Your task to perform on an android device: set default search engine in the chrome app Image 0: 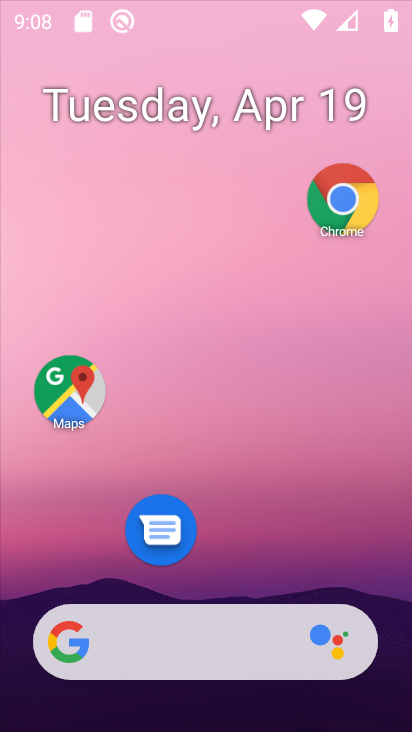
Step 0: drag from (316, 85) to (196, 98)
Your task to perform on an android device: set default search engine in the chrome app Image 1: 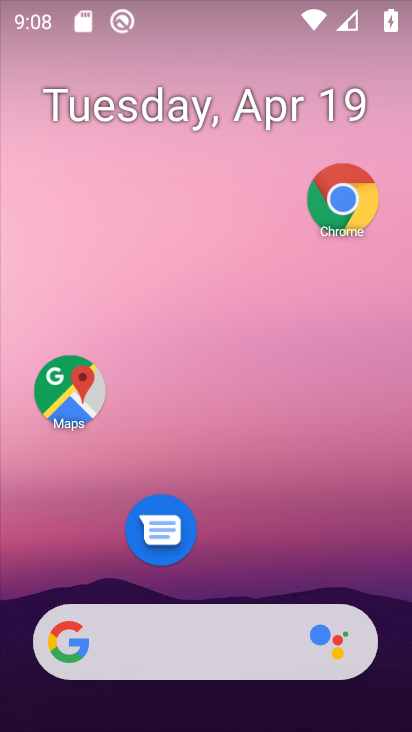
Step 1: drag from (201, 556) to (193, 292)
Your task to perform on an android device: set default search engine in the chrome app Image 2: 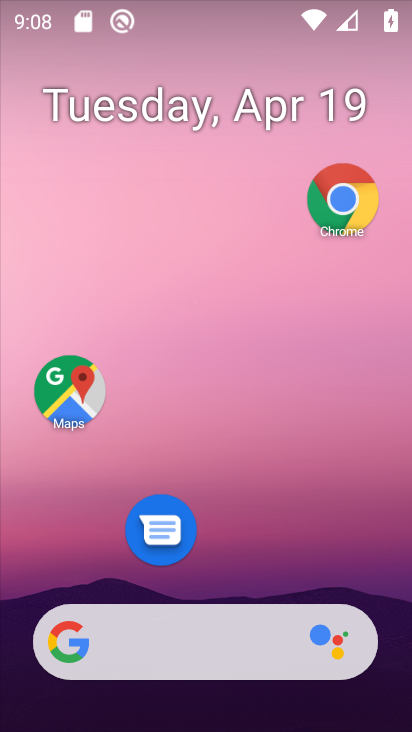
Step 2: drag from (214, 590) to (247, 269)
Your task to perform on an android device: set default search engine in the chrome app Image 3: 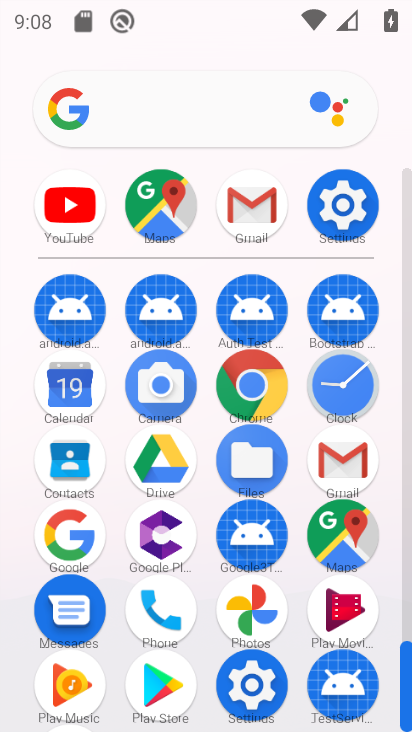
Step 3: drag from (200, 687) to (206, 338)
Your task to perform on an android device: set default search engine in the chrome app Image 4: 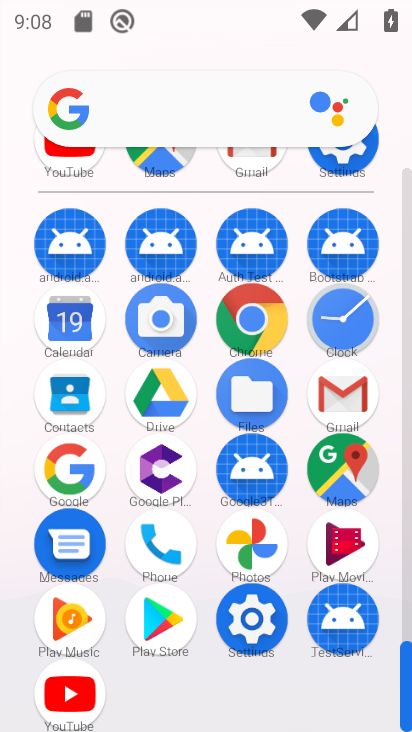
Step 4: drag from (194, 632) to (200, 429)
Your task to perform on an android device: set default search engine in the chrome app Image 5: 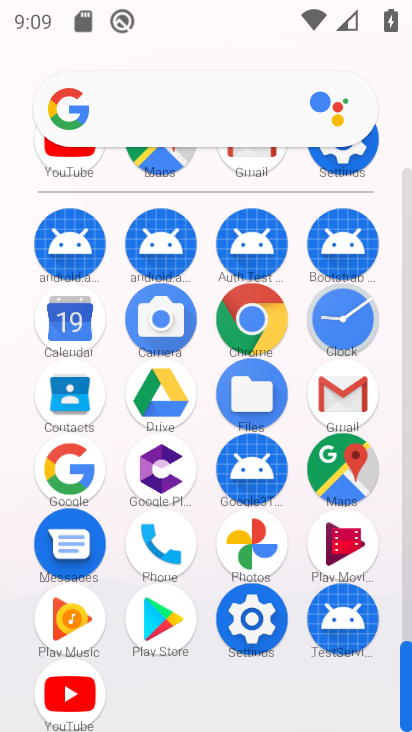
Step 5: click (255, 312)
Your task to perform on an android device: set default search engine in the chrome app Image 6: 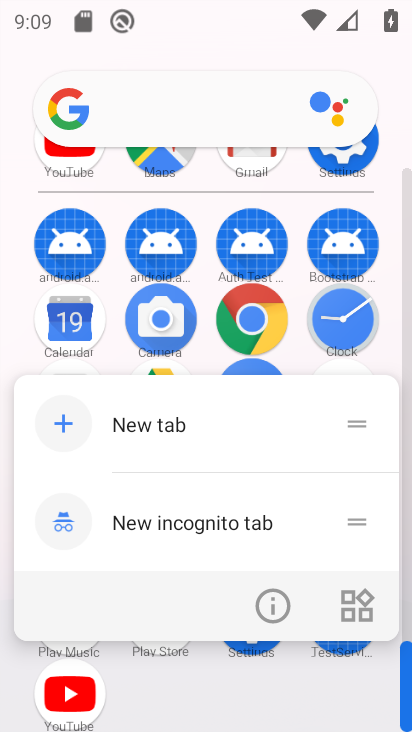
Step 6: click (270, 588)
Your task to perform on an android device: set default search engine in the chrome app Image 7: 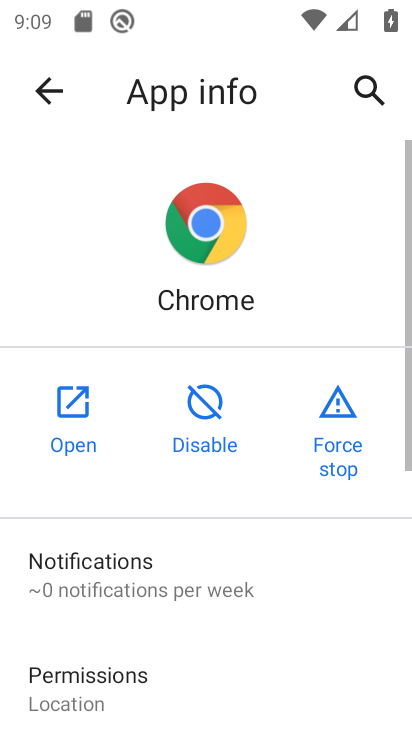
Step 7: click (80, 425)
Your task to perform on an android device: set default search engine in the chrome app Image 8: 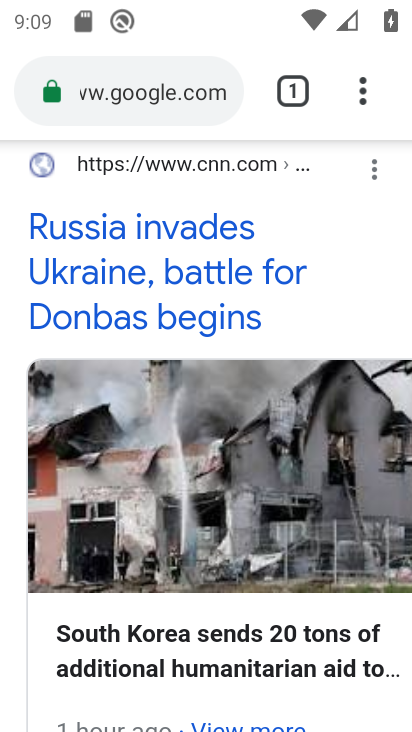
Step 8: drag from (181, 660) to (389, 82)
Your task to perform on an android device: set default search engine in the chrome app Image 9: 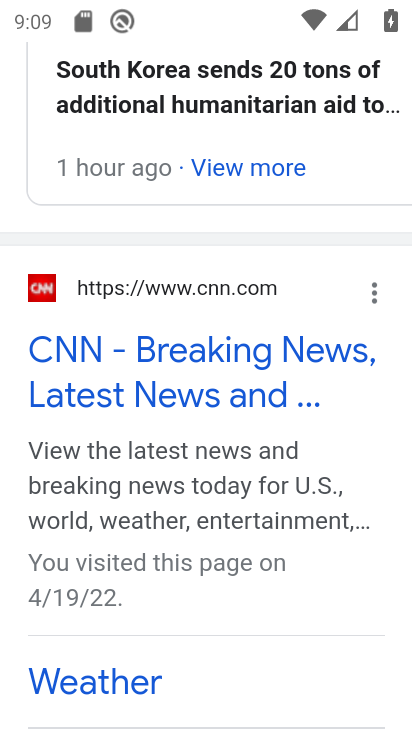
Step 9: drag from (178, 574) to (282, 155)
Your task to perform on an android device: set default search engine in the chrome app Image 10: 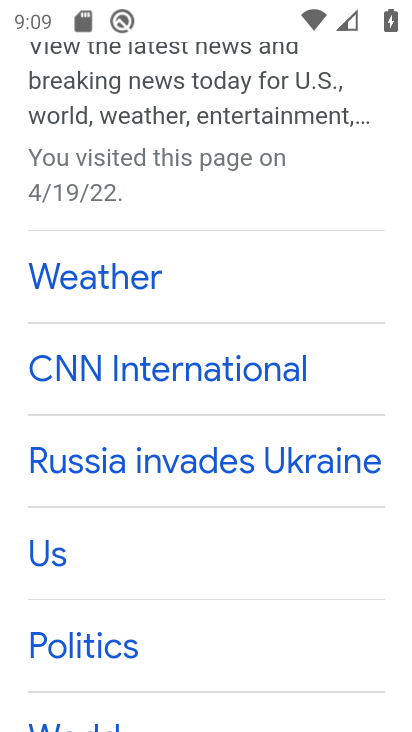
Step 10: drag from (220, 249) to (262, 564)
Your task to perform on an android device: set default search engine in the chrome app Image 11: 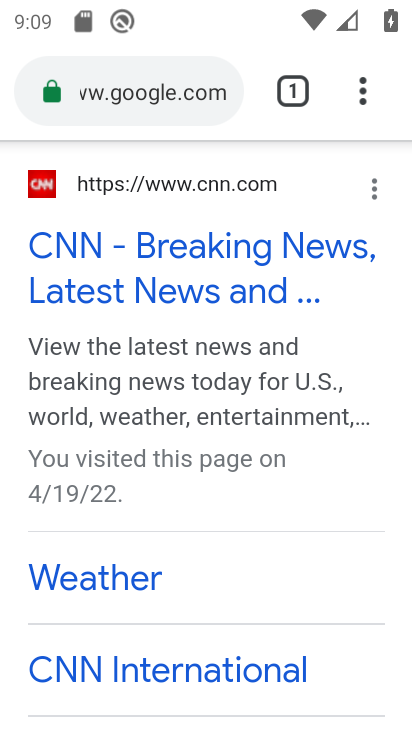
Step 11: drag from (224, 184) to (240, 493)
Your task to perform on an android device: set default search engine in the chrome app Image 12: 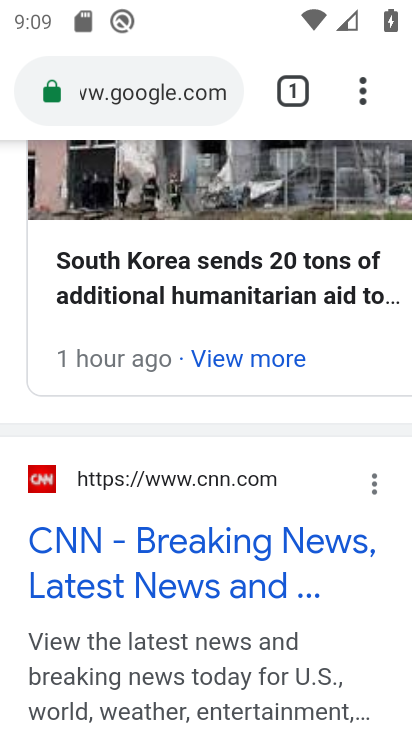
Step 12: click (356, 103)
Your task to perform on an android device: set default search engine in the chrome app Image 13: 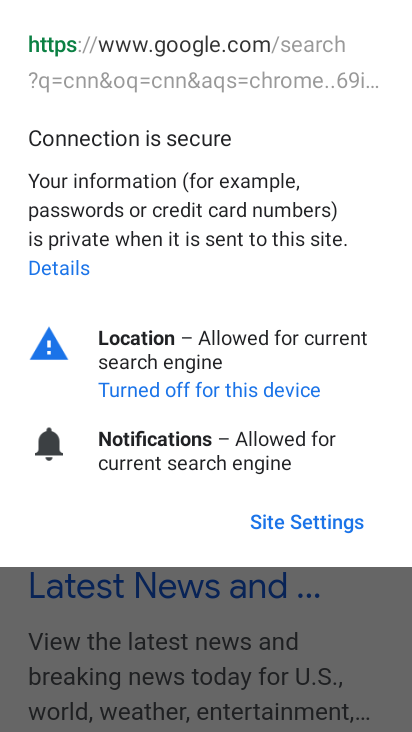
Step 13: click (307, 670)
Your task to perform on an android device: set default search engine in the chrome app Image 14: 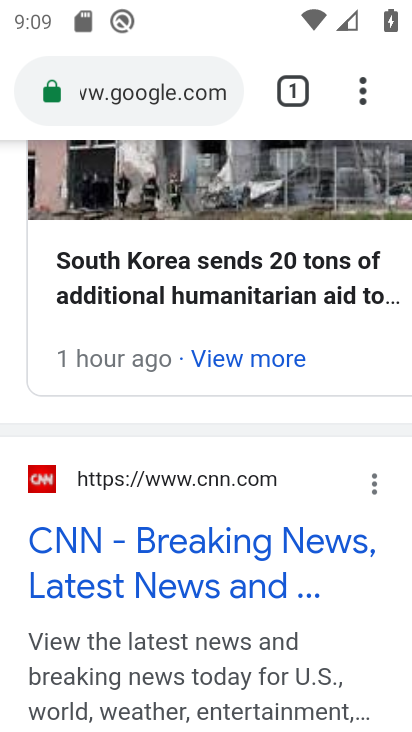
Step 14: drag from (311, 259) to (307, 653)
Your task to perform on an android device: set default search engine in the chrome app Image 15: 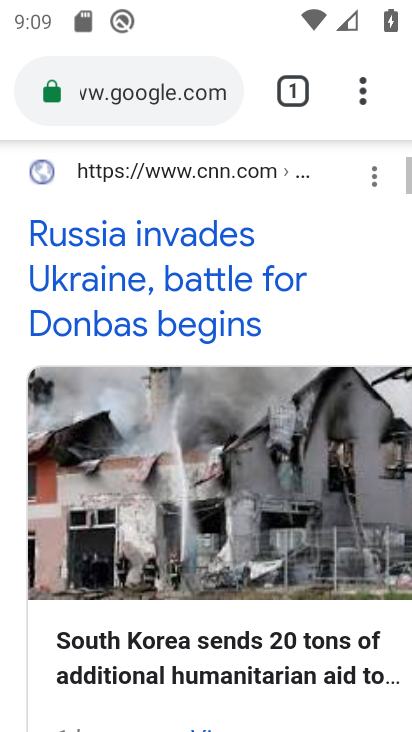
Step 15: drag from (252, 234) to (399, 643)
Your task to perform on an android device: set default search engine in the chrome app Image 16: 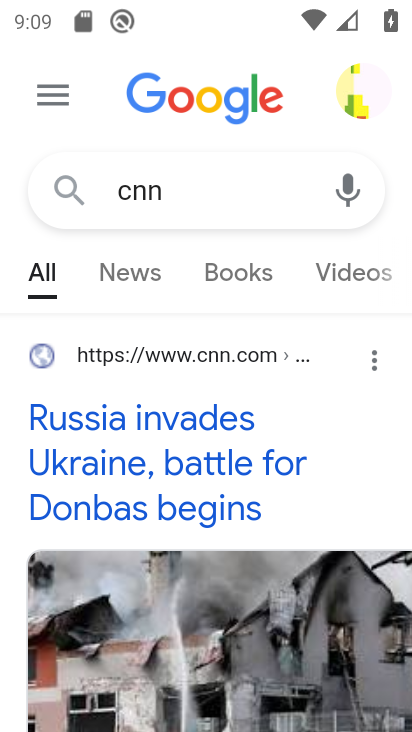
Step 16: drag from (304, 496) to (355, 36)
Your task to perform on an android device: set default search engine in the chrome app Image 17: 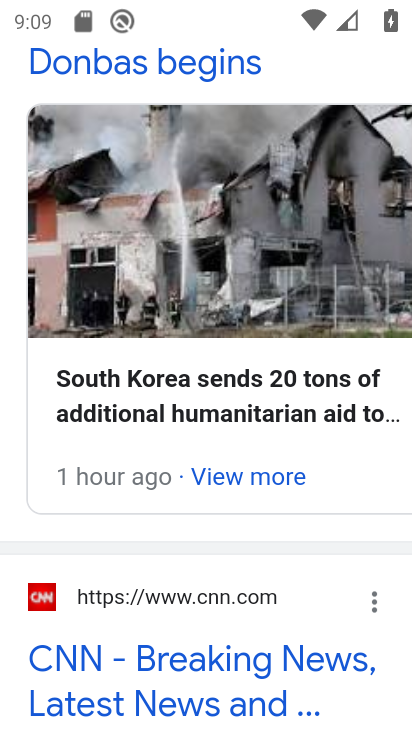
Step 17: press home button
Your task to perform on an android device: set default search engine in the chrome app Image 18: 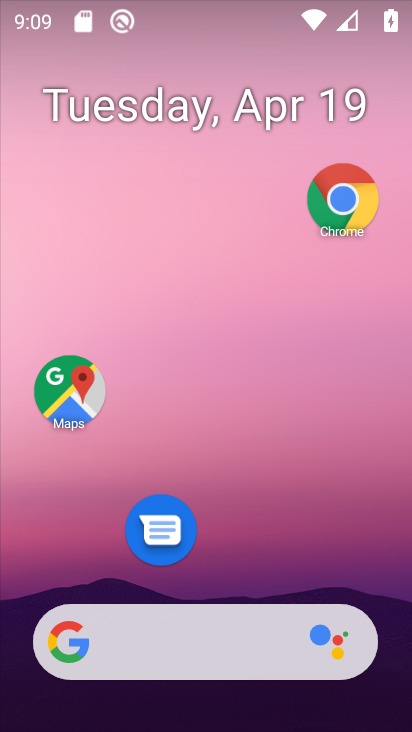
Step 18: drag from (181, 582) to (282, 14)
Your task to perform on an android device: set default search engine in the chrome app Image 19: 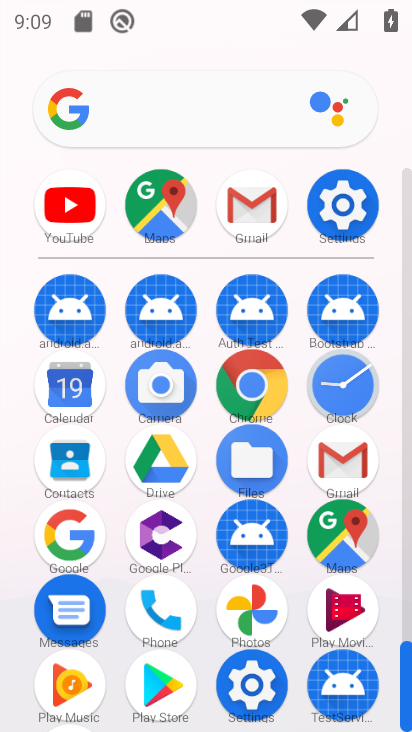
Step 19: click (256, 379)
Your task to perform on an android device: set default search engine in the chrome app Image 20: 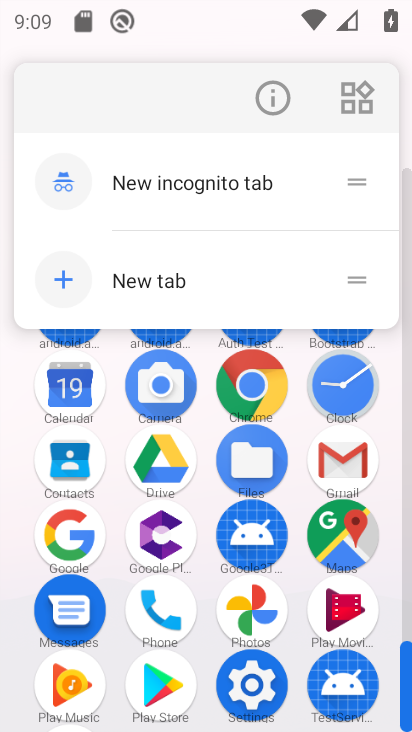
Step 20: click (269, 116)
Your task to perform on an android device: set default search engine in the chrome app Image 21: 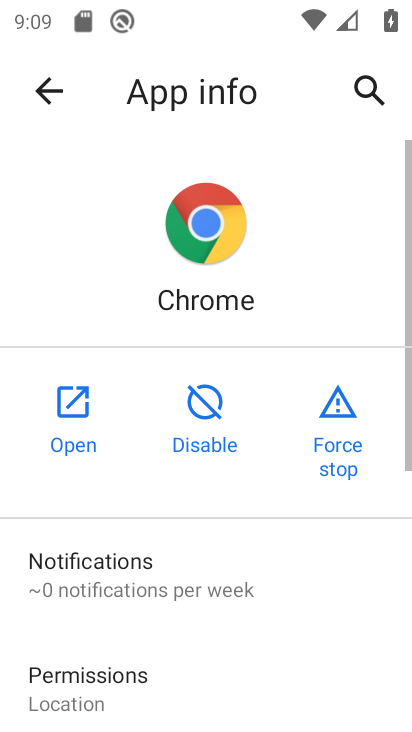
Step 21: click (77, 393)
Your task to perform on an android device: set default search engine in the chrome app Image 22: 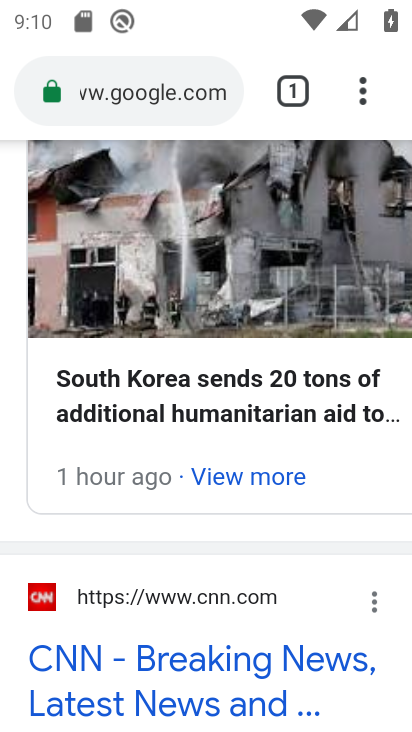
Step 22: click (360, 92)
Your task to perform on an android device: set default search engine in the chrome app Image 23: 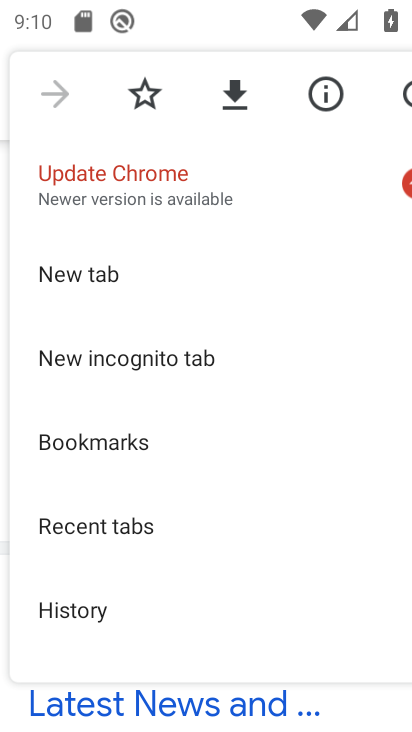
Step 23: drag from (198, 617) to (277, 106)
Your task to perform on an android device: set default search engine in the chrome app Image 24: 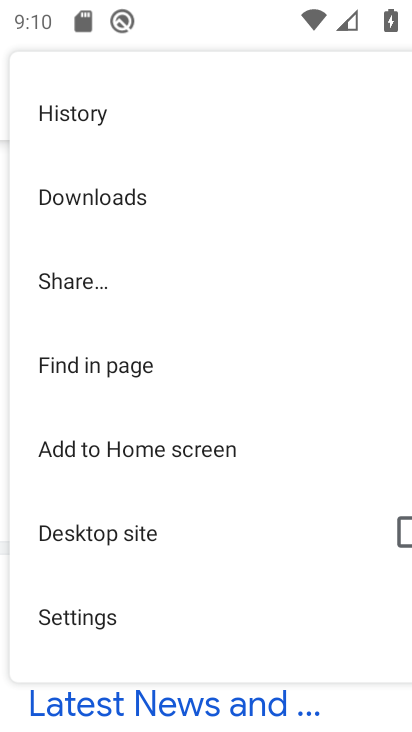
Step 24: drag from (119, 628) to (276, 110)
Your task to perform on an android device: set default search engine in the chrome app Image 25: 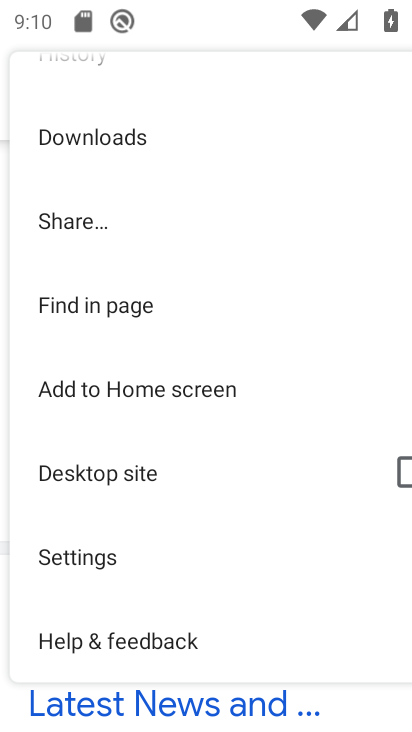
Step 25: click (89, 542)
Your task to perform on an android device: set default search engine in the chrome app Image 26: 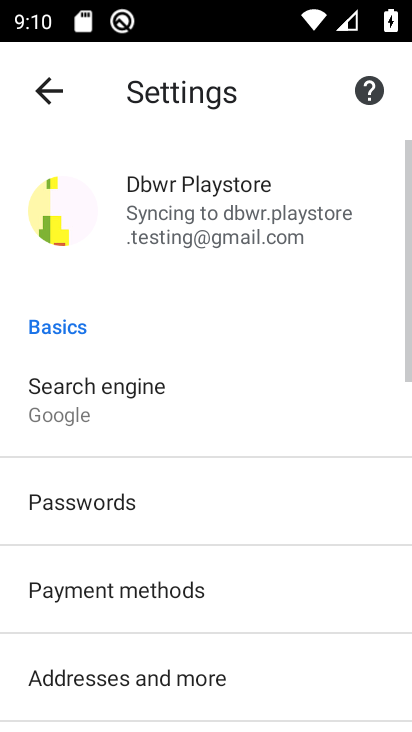
Step 26: click (114, 389)
Your task to perform on an android device: set default search engine in the chrome app Image 27: 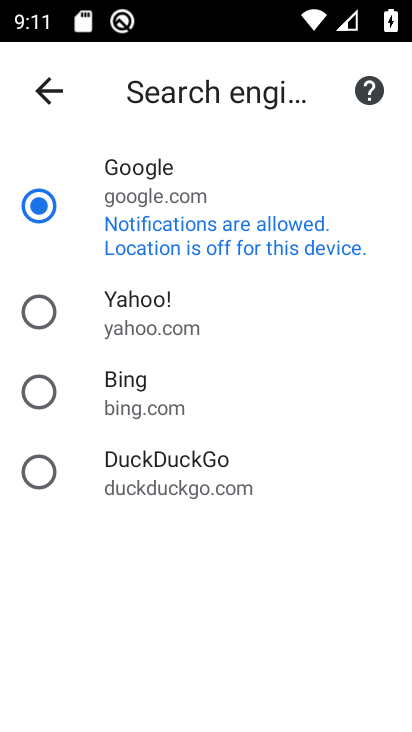
Step 27: click (144, 186)
Your task to perform on an android device: set default search engine in the chrome app Image 28: 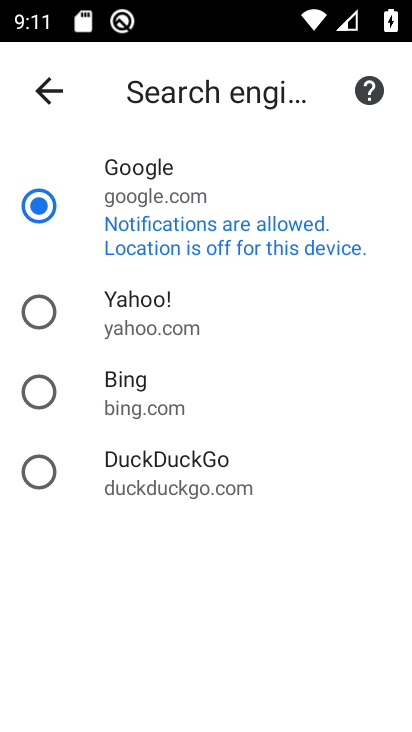
Step 28: task complete